Your task to perform on an android device: What's the weather today? Image 0: 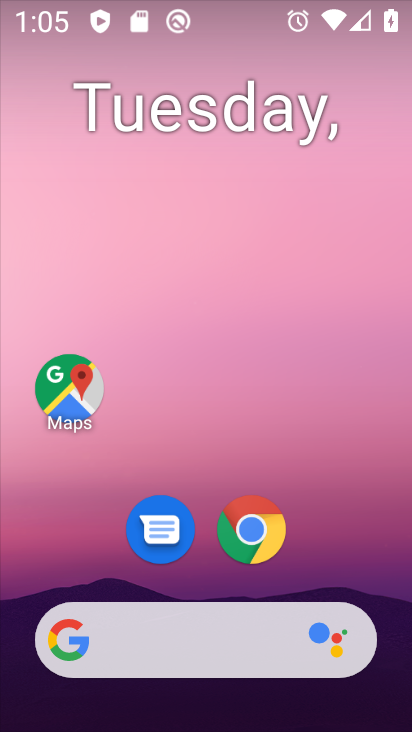
Step 0: drag from (70, 248) to (386, 97)
Your task to perform on an android device: What's the weather today? Image 1: 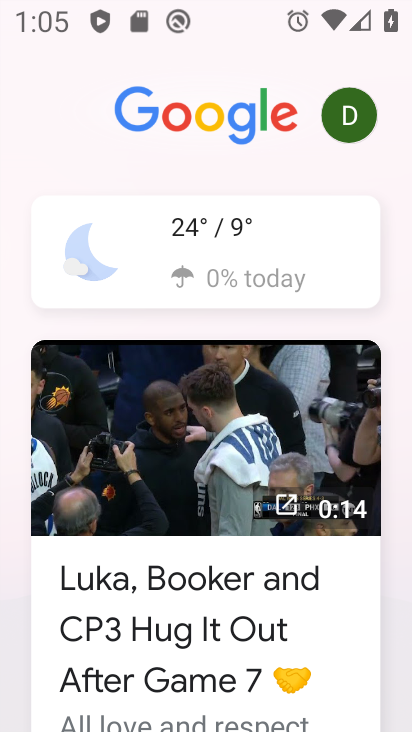
Step 1: click (100, 272)
Your task to perform on an android device: What's the weather today? Image 2: 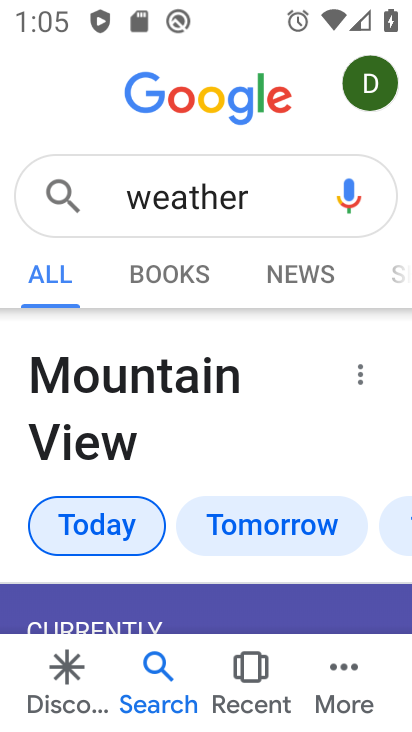
Step 2: task complete